Your task to perform on an android device: add a contact in the contacts app Image 0: 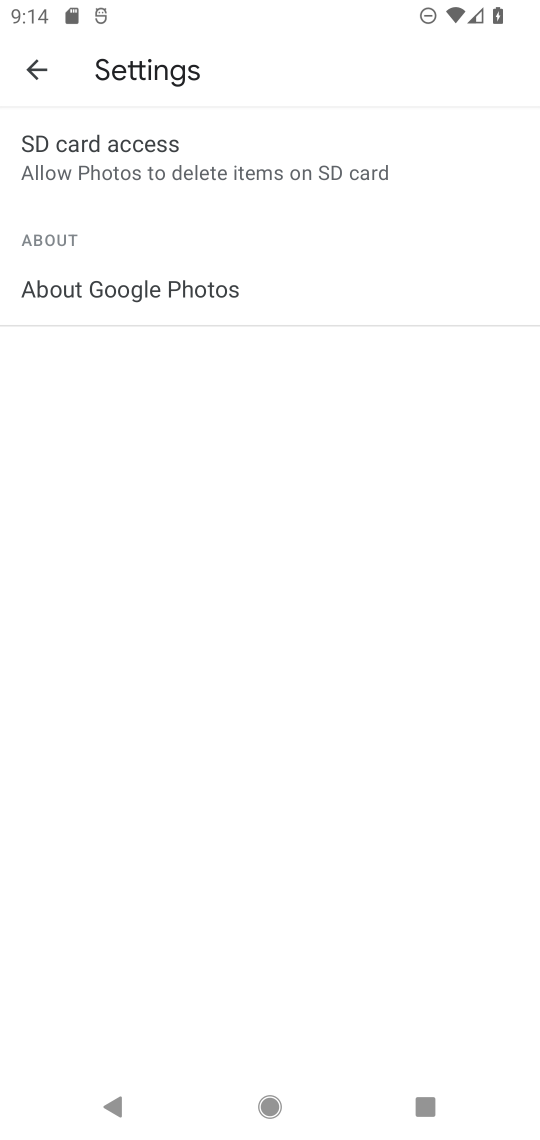
Step 0: press home button
Your task to perform on an android device: add a contact in the contacts app Image 1: 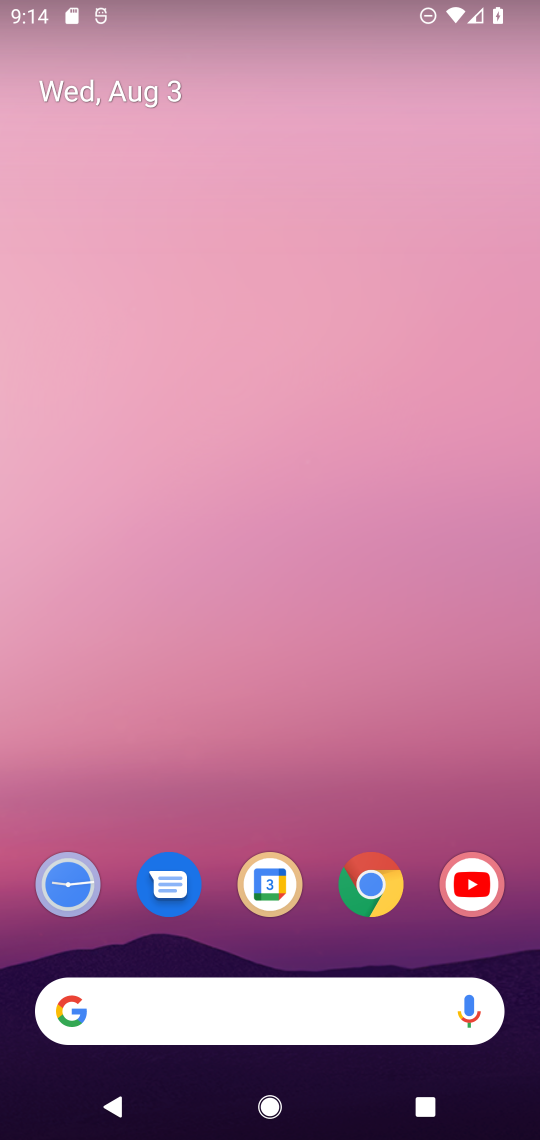
Step 1: drag from (257, 595) to (438, 55)
Your task to perform on an android device: add a contact in the contacts app Image 2: 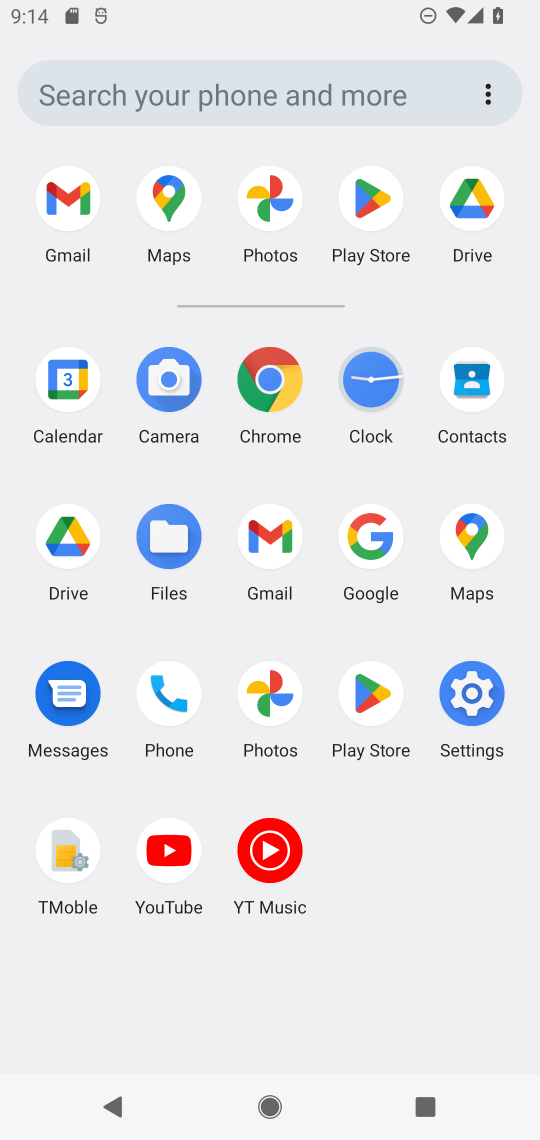
Step 2: click (455, 408)
Your task to perform on an android device: add a contact in the contacts app Image 3: 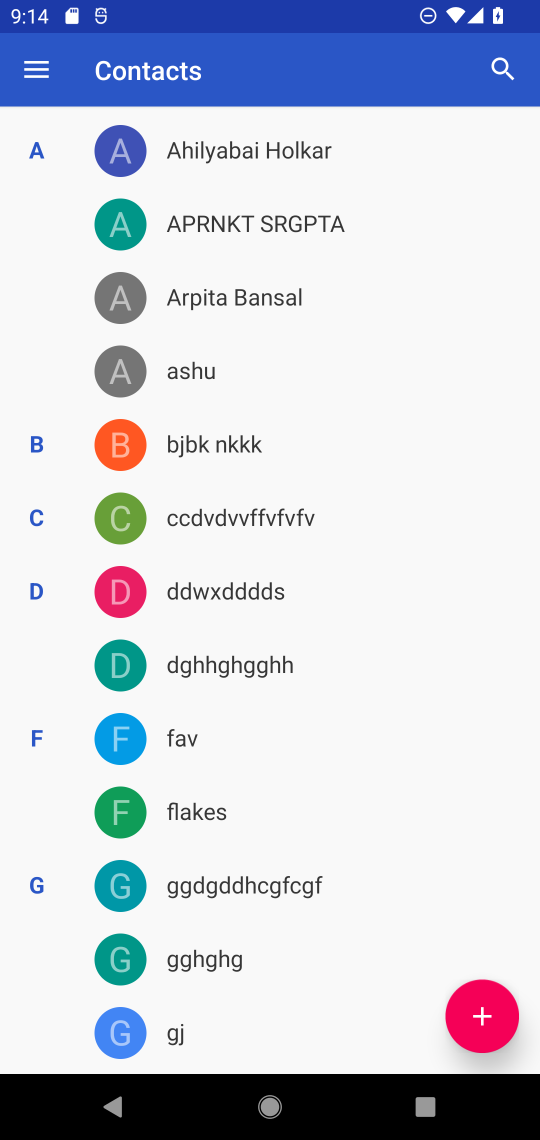
Step 3: task complete